Your task to perform on an android device: turn on javascript in the chrome app Image 0: 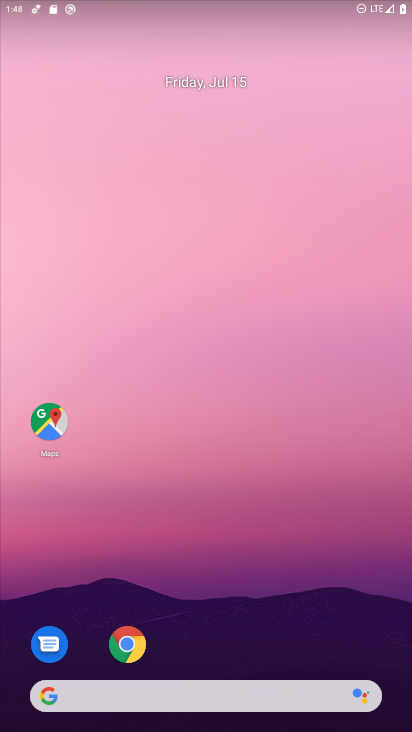
Step 0: click (104, 645)
Your task to perform on an android device: turn on javascript in the chrome app Image 1: 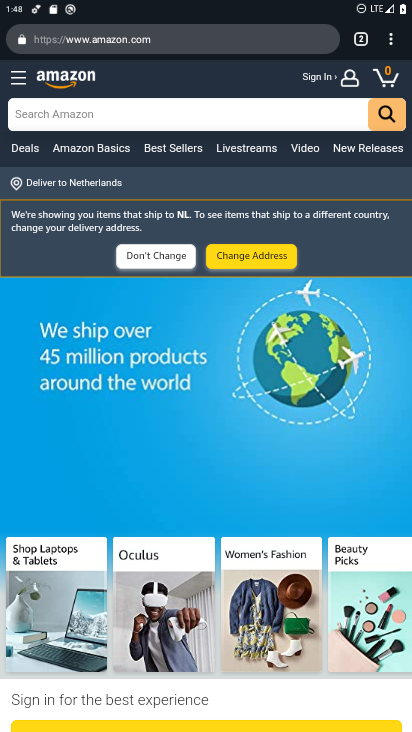
Step 1: click (385, 39)
Your task to perform on an android device: turn on javascript in the chrome app Image 2: 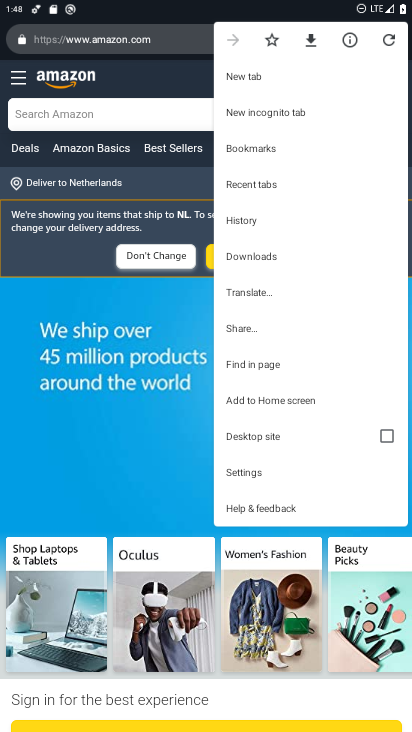
Step 2: click (264, 473)
Your task to perform on an android device: turn on javascript in the chrome app Image 3: 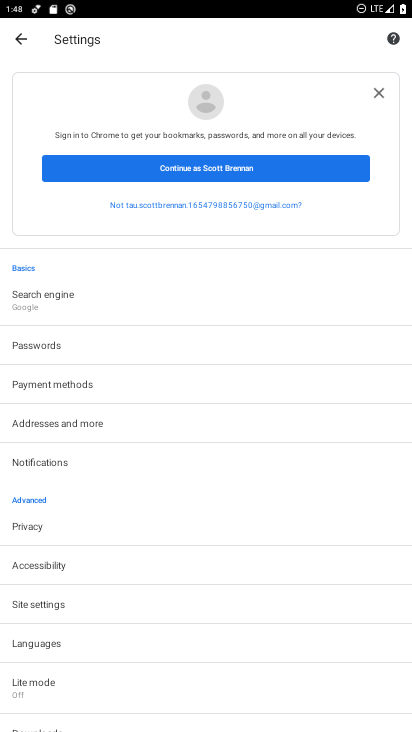
Step 3: click (118, 603)
Your task to perform on an android device: turn on javascript in the chrome app Image 4: 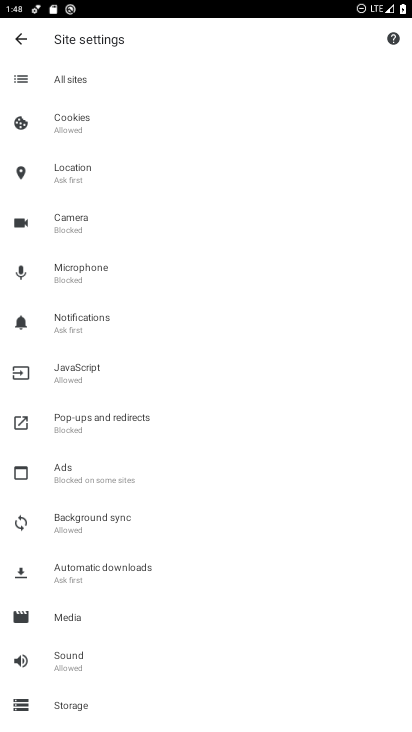
Step 4: click (138, 369)
Your task to perform on an android device: turn on javascript in the chrome app Image 5: 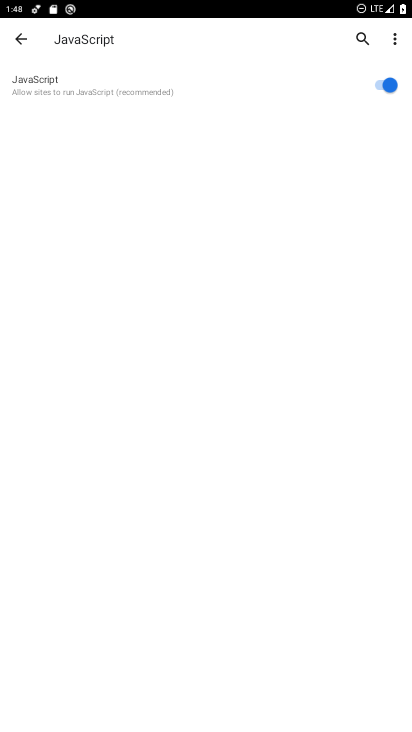
Step 5: task complete